Your task to perform on an android device: open chrome and create a bookmark for the current page Image 0: 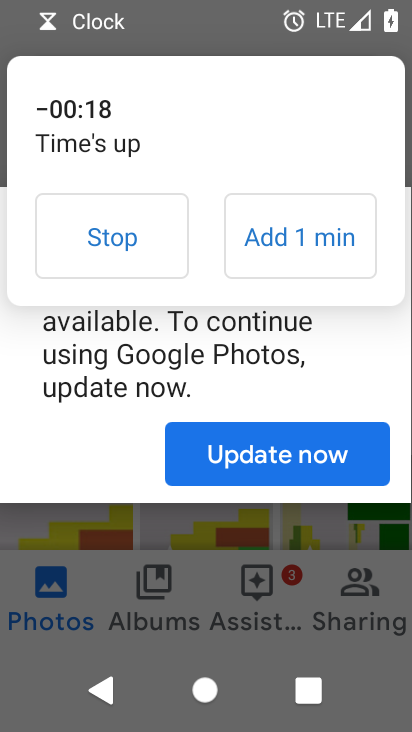
Step 0: click (88, 247)
Your task to perform on an android device: open chrome and create a bookmark for the current page Image 1: 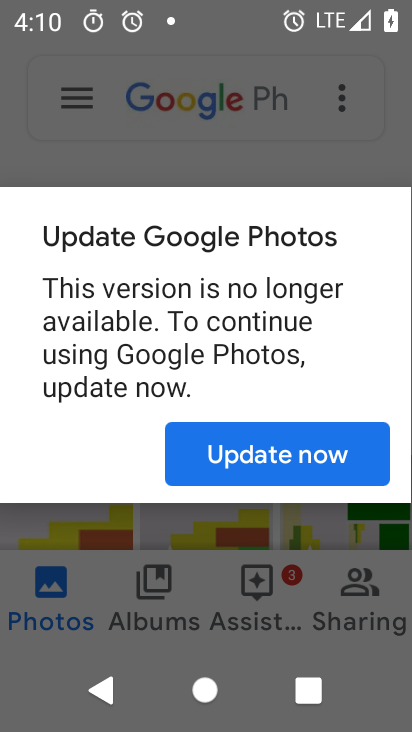
Step 1: press home button
Your task to perform on an android device: open chrome and create a bookmark for the current page Image 2: 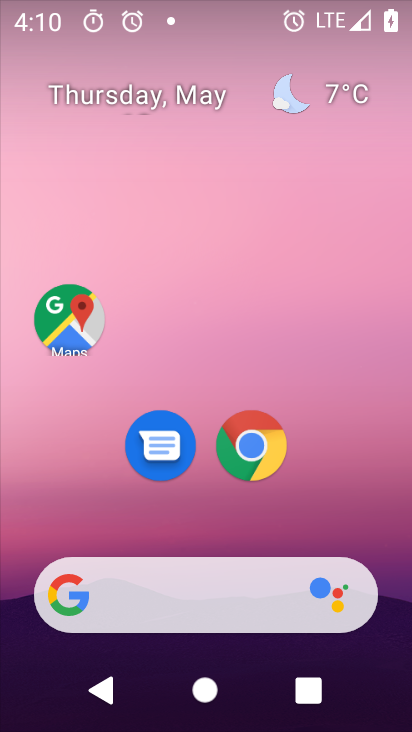
Step 2: click (252, 447)
Your task to perform on an android device: open chrome and create a bookmark for the current page Image 3: 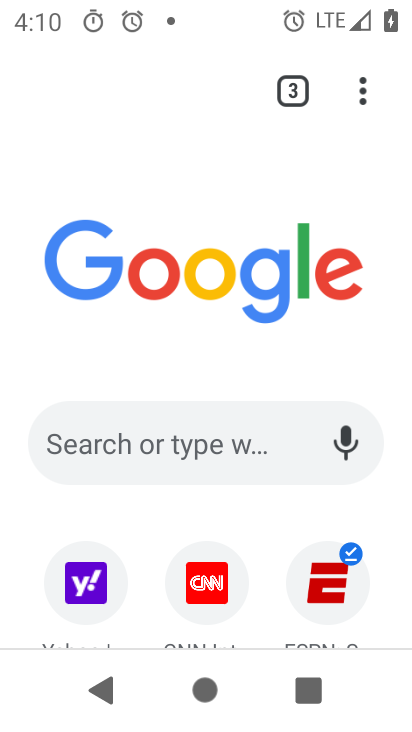
Step 3: click (362, 91)
Your task to perform on an android device: open chrome and create a bookmark for the current page Image 4: 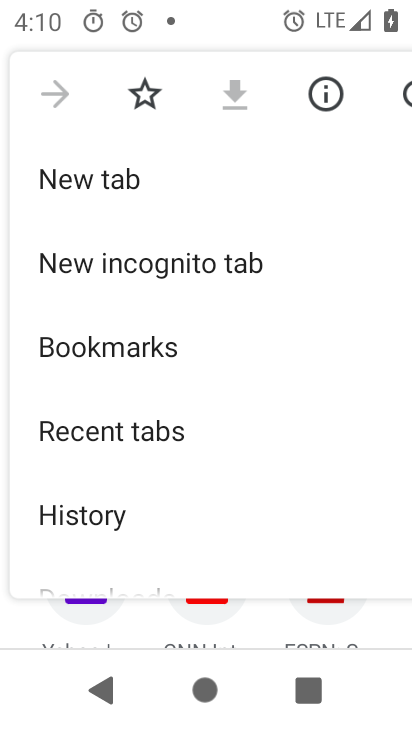
Step 4: click (140, 78)
Your task to perform on an android device: open chrome and create a bookmark for the current page Image 5: 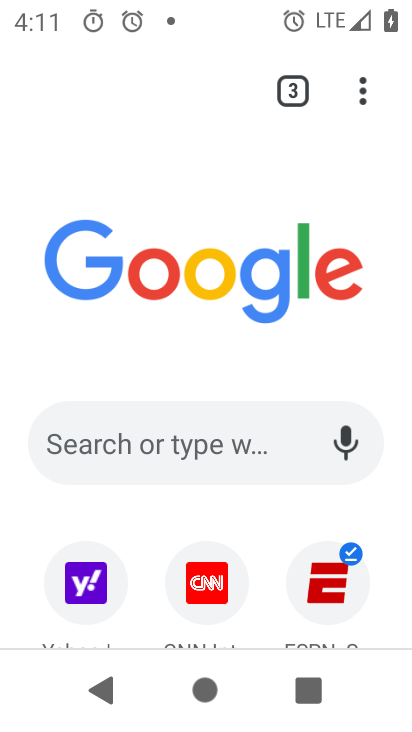
Step 5: task complete